Your task to perform on an android device: set an alarm Image 0: 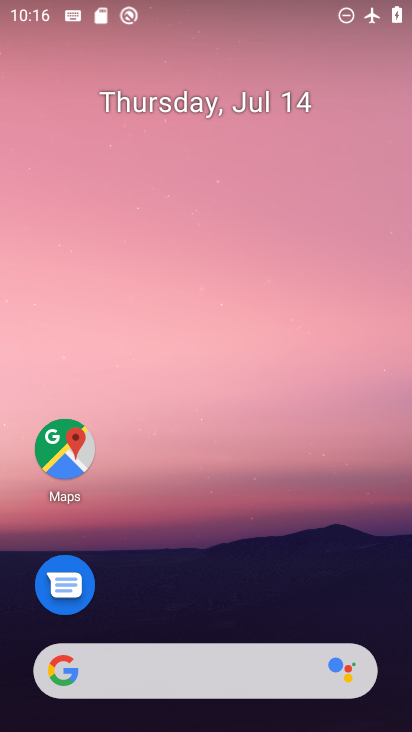
Step 0: drag from (221, 637) to (205, 69)
Your task to perform on an android device: set an alarm Image 1: 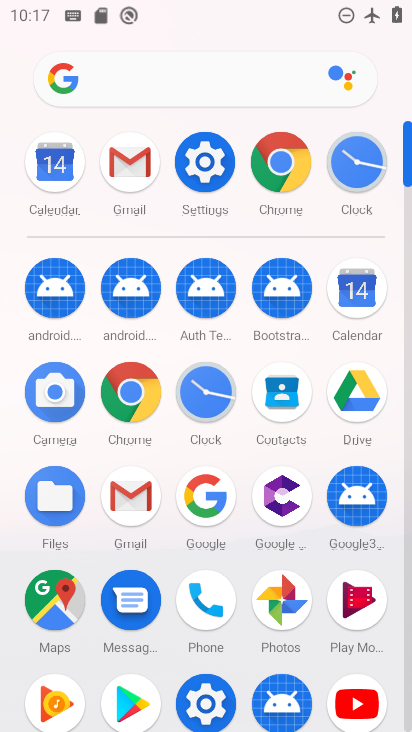
Step 1: click (210, 383)
Your task to perform on an android device: set an alarm Image 2: 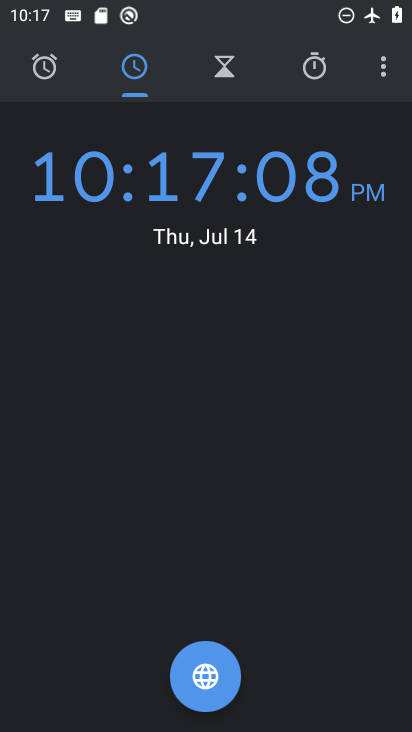
Step 2: click (44, 75)
Your task to perform on an android device: set an alarm Image 3: 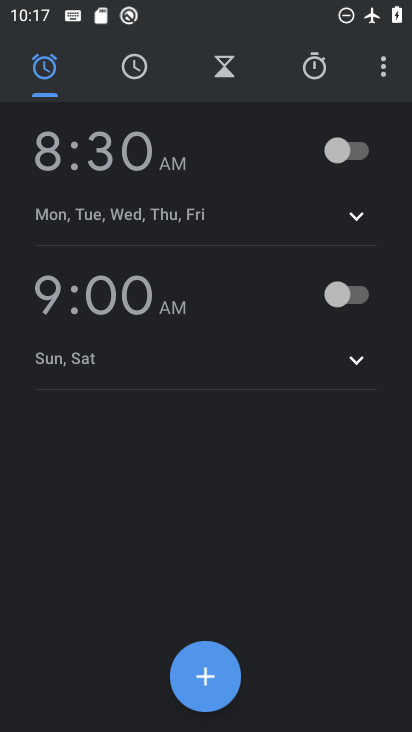
Step 3: click (208, 658)
Your task to perform on an android device: set an alarm Image 4: 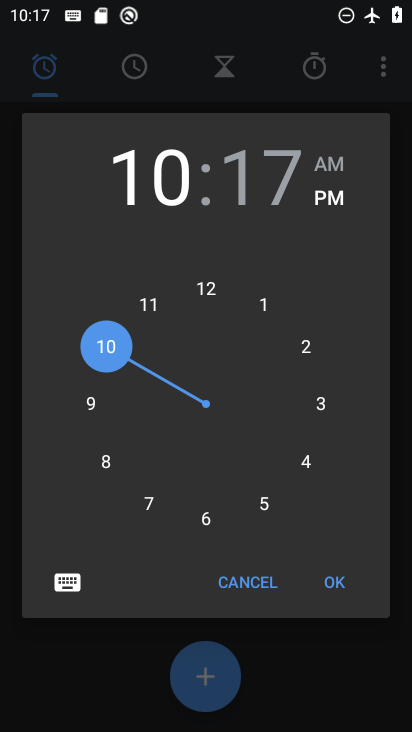
Step 4: click (337, 581)
Your task to perform on an android device: set an alarm Image 5: 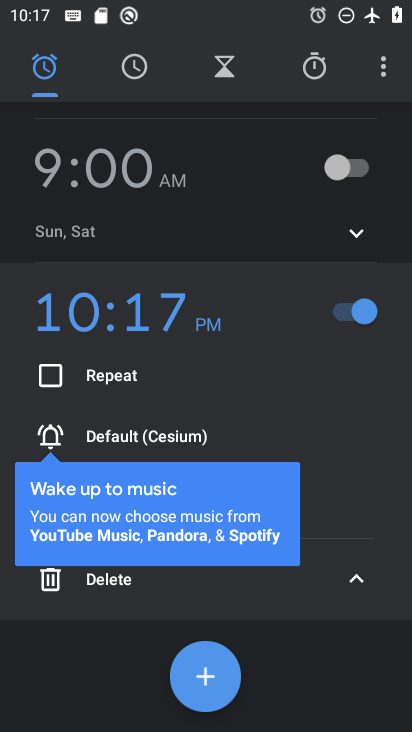
Step 5: task complete